Your task to perform on an android device: Open ESPN.com Image 0: 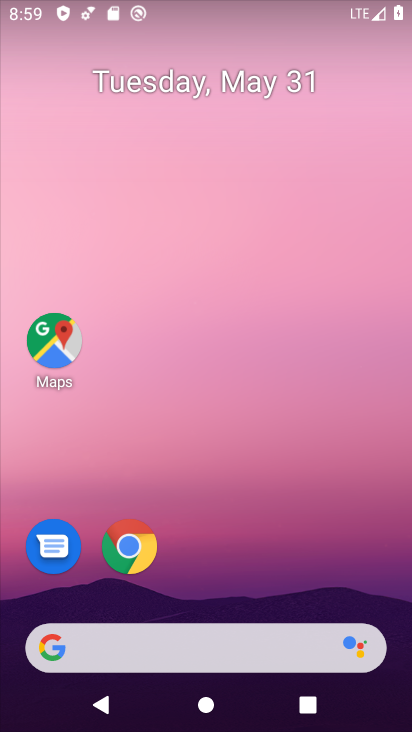
Step 0: click (123, 548)
Your task to perform on an android device: Open ESPN.com Image 1: 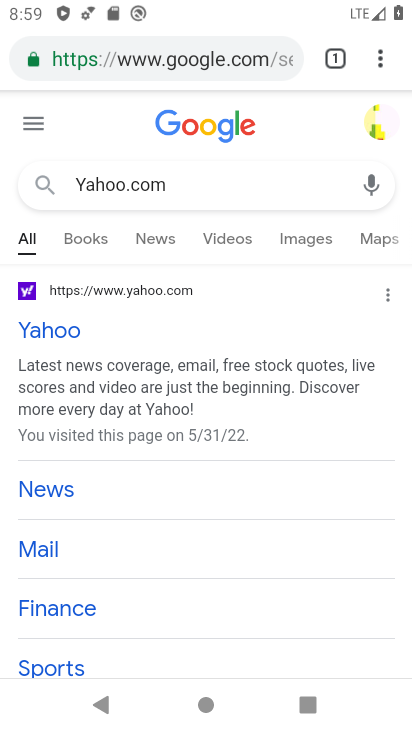
Step 1: click (291, 57)
Your task to perform on an android device: Open ESPN.com Image 2: 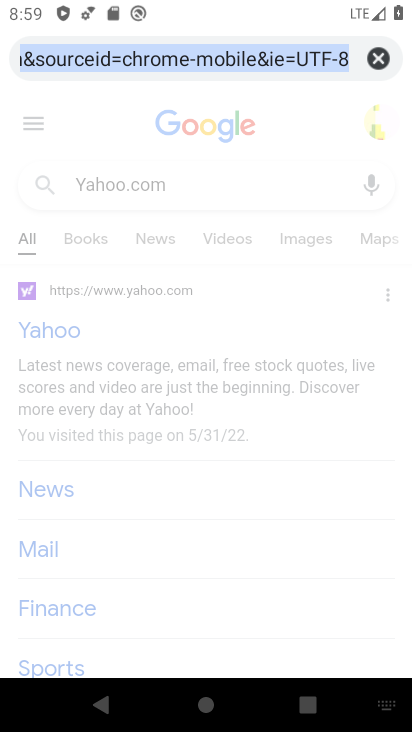
Step 2: click (372, 56)
Your task to perform on an android device: Open ESPN.com Image 3: 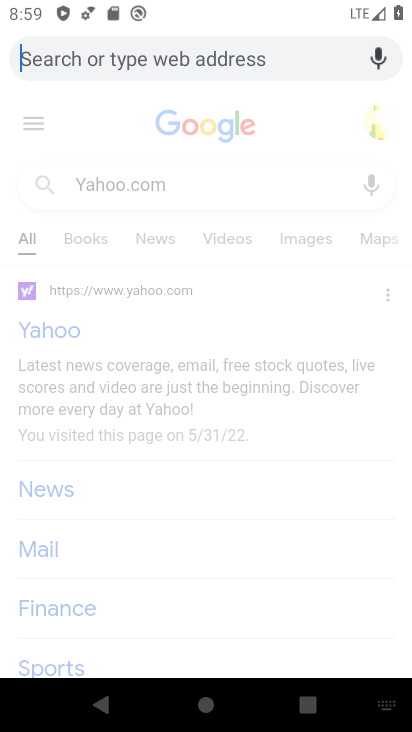
Step 3: type "ESPN.com"
Your task to perform on an android device: Open ESPN.com Image 4: 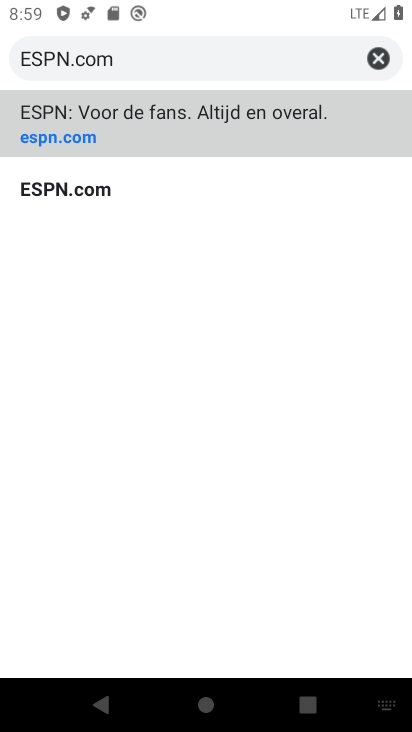
Step 4: click (60, 180)
Your task to perform on an android device: Open ESPN.com Image 5: 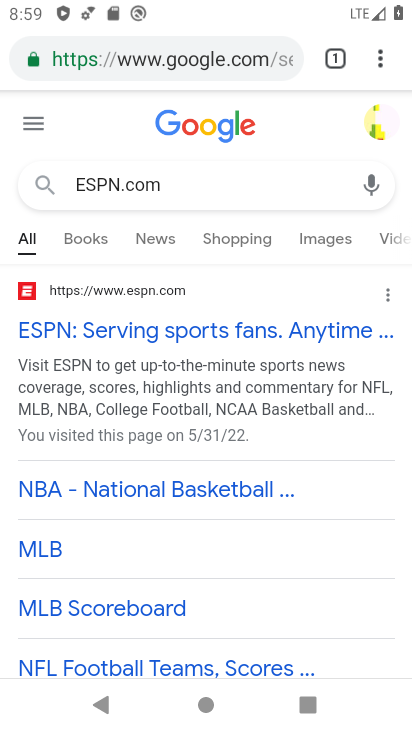
Step 5: task complete